Your task to perform on an android device: Set the phone to "Do not disturb". Image 0: 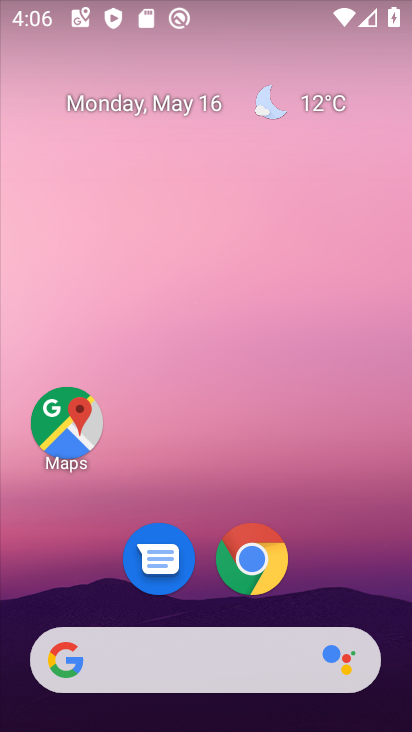
Step 0: drag from (326, 522) to (242, 115)
Your task to perform on an android device: Set the phone to "Do not disturb". Image 1: 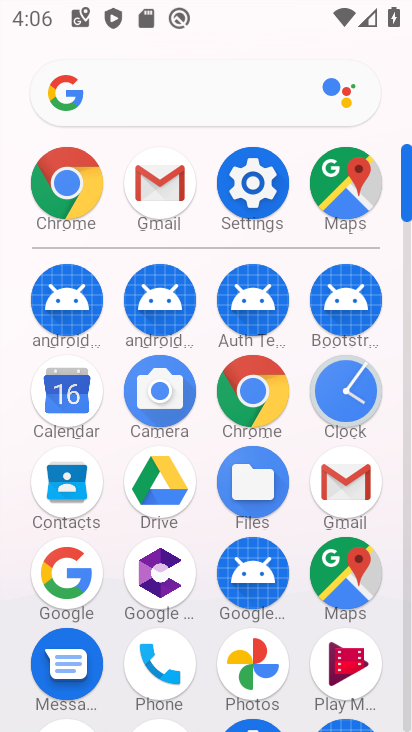
Step 1: click (270, 216)
Your task to perform on an android device: Set the phone to "Do not disturb". Image 2: 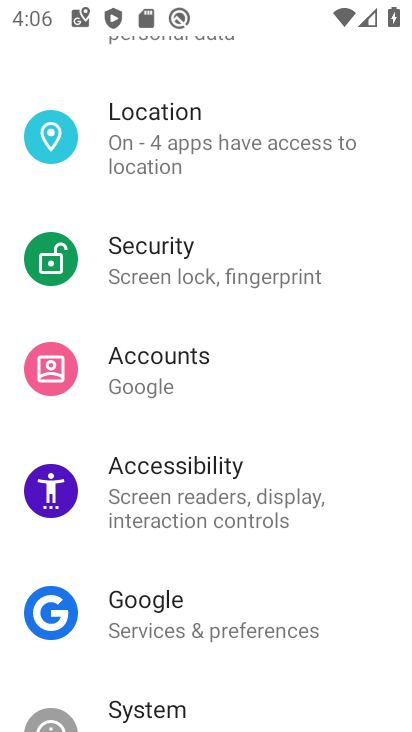
Step 2: drag from (192, 311) to (202, 494)
Your task to perform on an android device: Set the phone to "Do not disturb". Image 3: 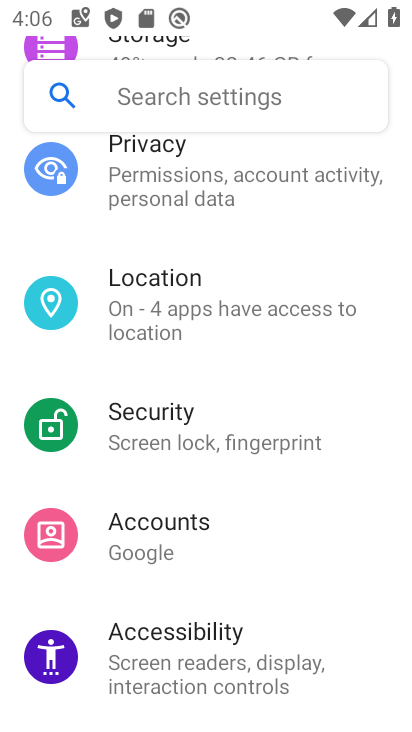
Step 3: drag from (172, 229) to (119, 537)
Your task to perform on an android device: Set the phone to "Do not disturb". Image 4: 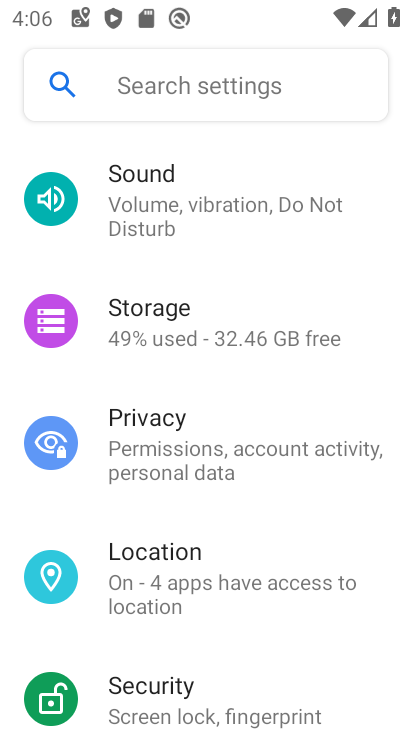
Step 4: click (201, 209)
Your task to perform on an android device: Set the phone to "Do not disturb". Image 5: 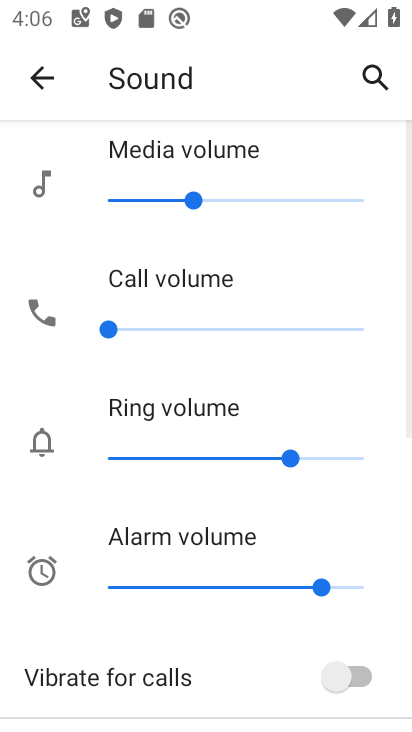
Step 5: drag from (270, 634) to (210, 150)
Your task to perform on an android device: Set the phone to "Do not disturb". Image 6: 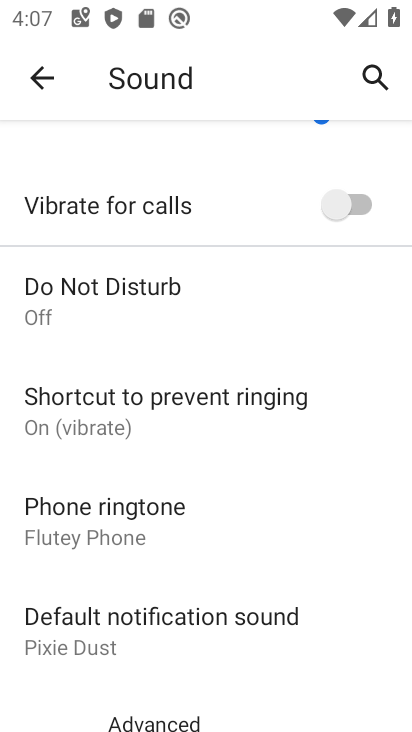
Step 6: click (174, 328)
Your task to perform on an android device: Set the phone to "Do not disturb". Image 7: 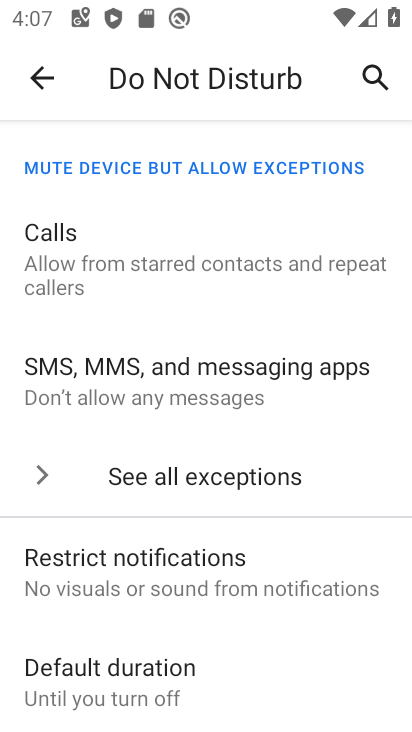
Step 7: drag from (288, 521) to (252, 201)
Your task to perform on an android device: Set the phone to "Do not disturb". Image 8: 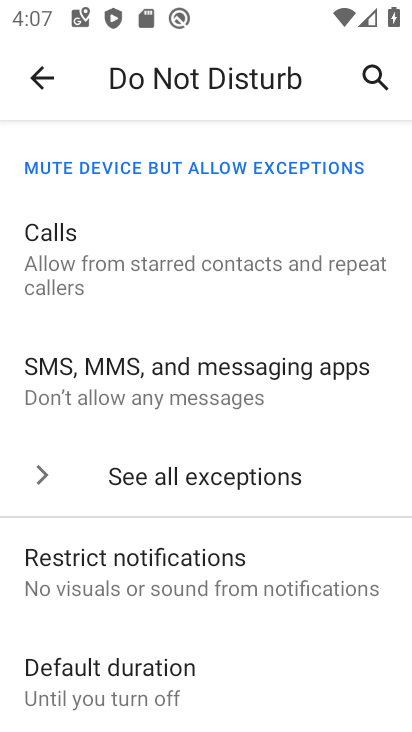
Step 8: drag from (256, 605) to (169, 13)
Your task to perform on an android device: Set the phone to "Do not disturb". Image 9: 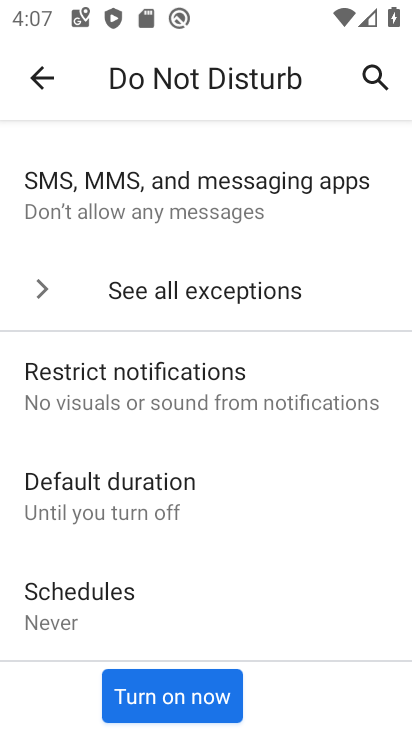
Step 9: click (178, 683)
Your task to perform on an android device: Set the phone to "Do not disturb". Image 10: 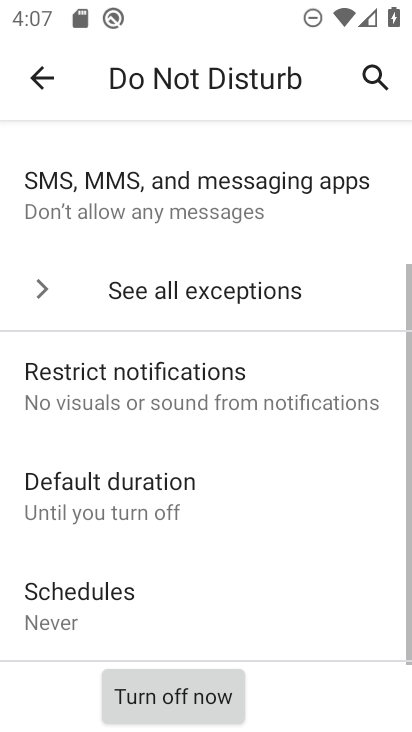
Step 10: task complete